Your task to perform on an android device: Open Android settings Image 0: 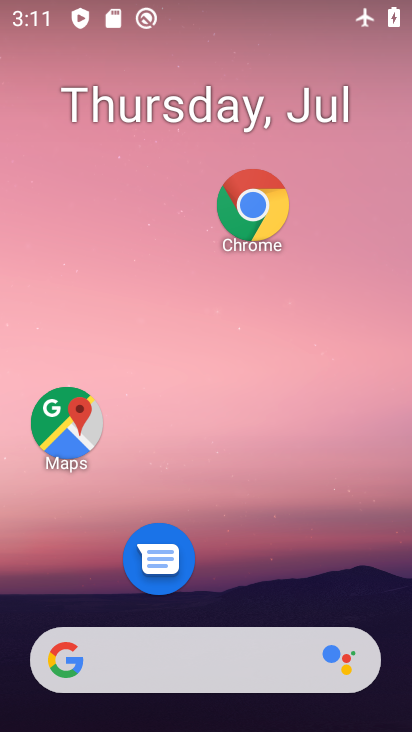
Step 0: drag from (245, 637) to (243, 104)
Your task to perform on an android device: Open Android settings Image 1: 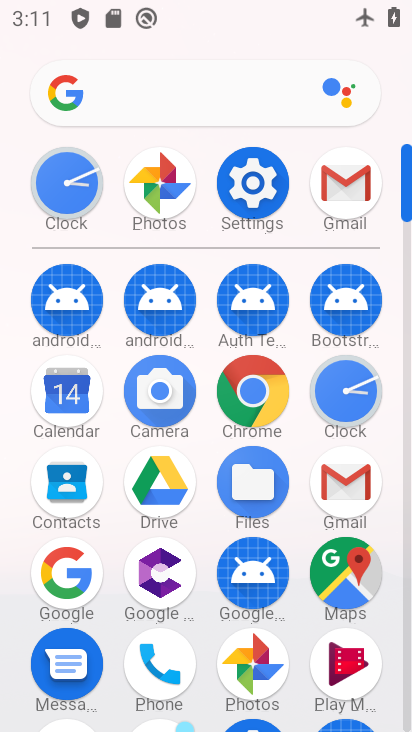
Step 1: drag from (245, 562) to (284, 109)
Your task to perform on an android device: Open Android settings Image 2: 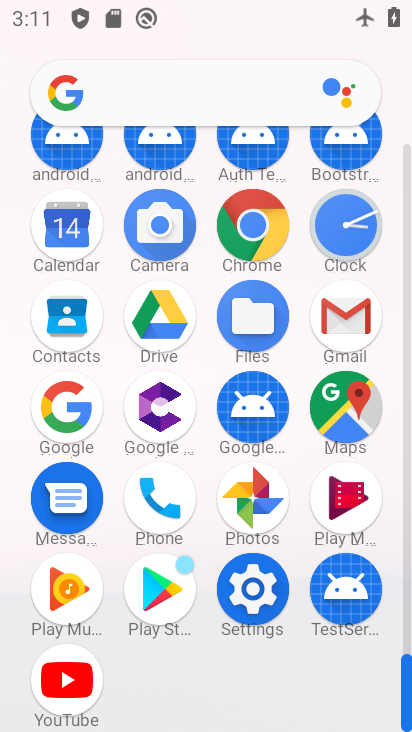
Step 2: click (272, 587)
Your task to perform on an android device: Open Android settings Image 3: 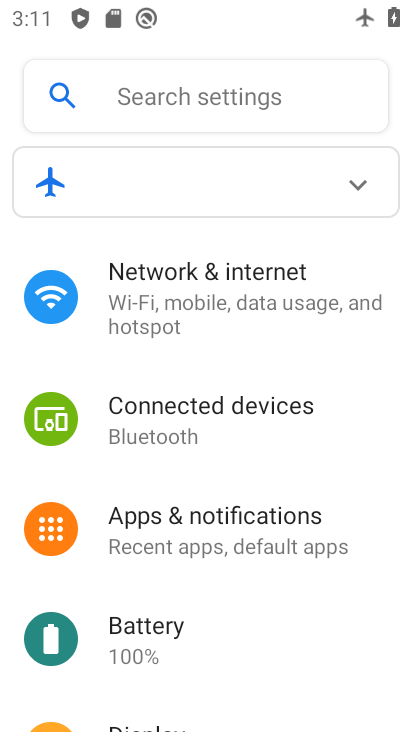
Step 3: drag from (182, 535) to (181, 173)
Your task to perform on an android device: Open Android settings Image 4: 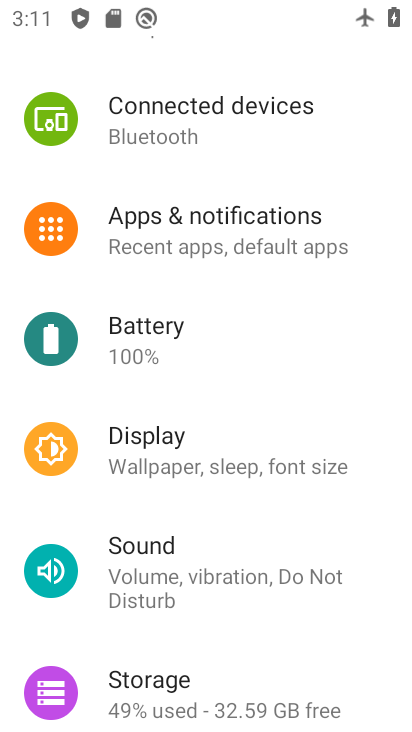
Step 4: drag from (213, 610) to (248, 149)
Your task to perform on an android device: Open Android settings Image 5: 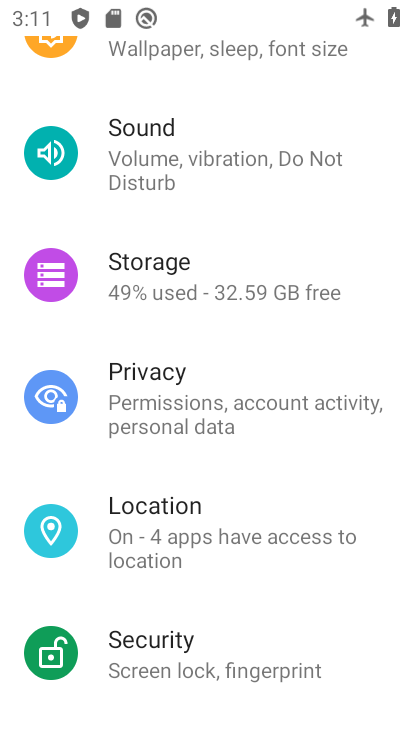
Step 5: drag from (237, 590) to (243, 212)
Your task to perform on an android device: Open Android settings Image 6: 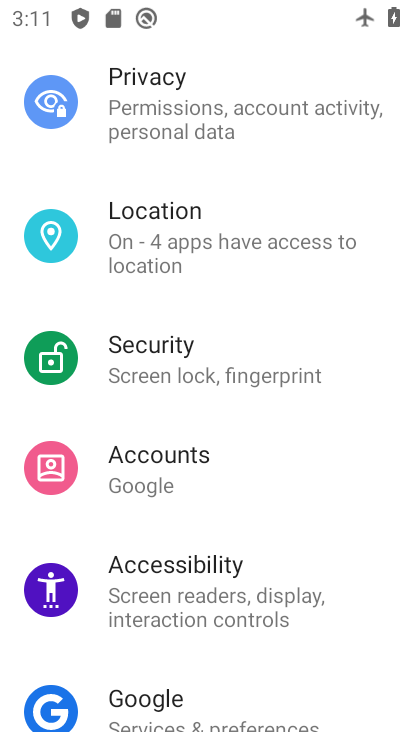
Step 6: drag from (209, 500) to (234, 152)
Your task to perform on an android device: Open Android settings Image 7: 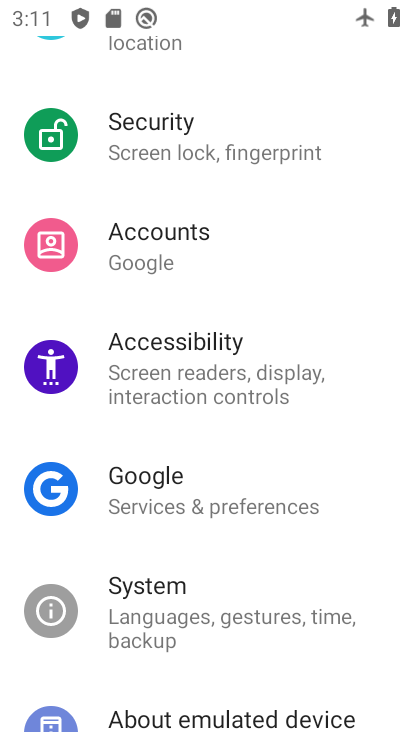
Step 7: drag from (198, 596) to (240, 126)
Your task to perform on an android device: Open Android settings Image 8: 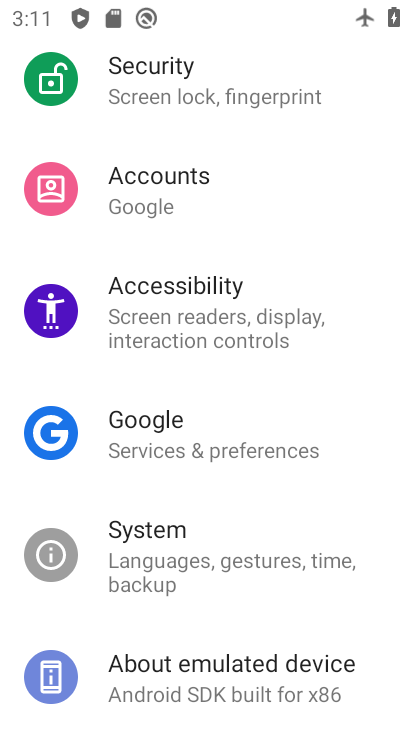
Step 8: click (206, 684)
Your task to perform on an android device: Open Android settings Image 9: 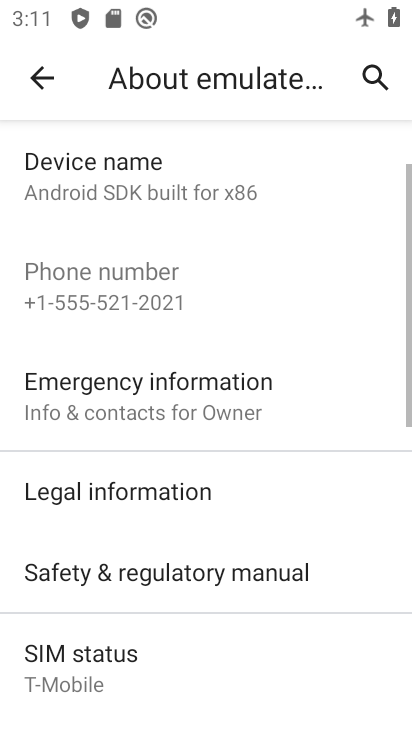
Step 9: drag from (191, 622) to (223, 138)
Your task to perform on an android device: Open Android settings Image 10: 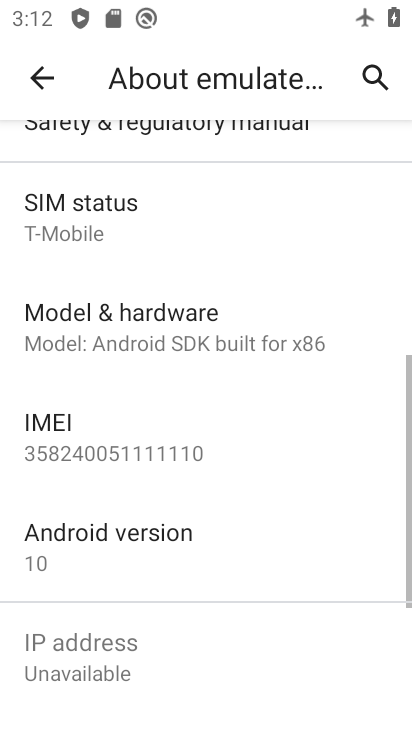
Step 10: click (194, 560)
Your task to perform on an android device: Open Android settings Image 11: 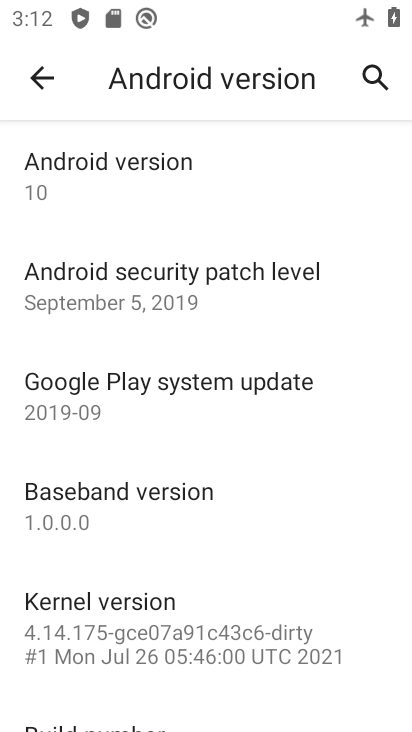
Step 11: task complete